Your task to perform on an android device: Go to Google maps Image 0: 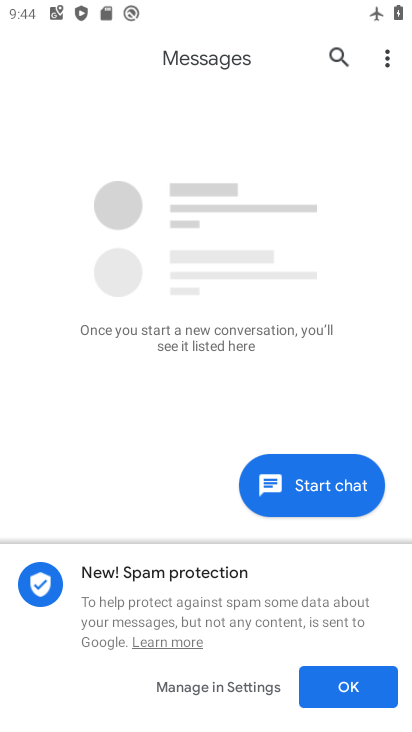
Step 0: press home button
Your task to perform on an android device: Go to Google maps Image 1: 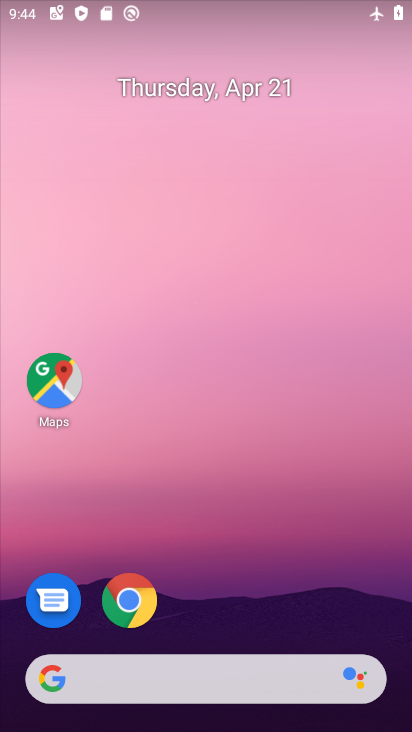
Step 1: click (58, 382)
Your task to perform on an android device: Go to Google maps Image 2: 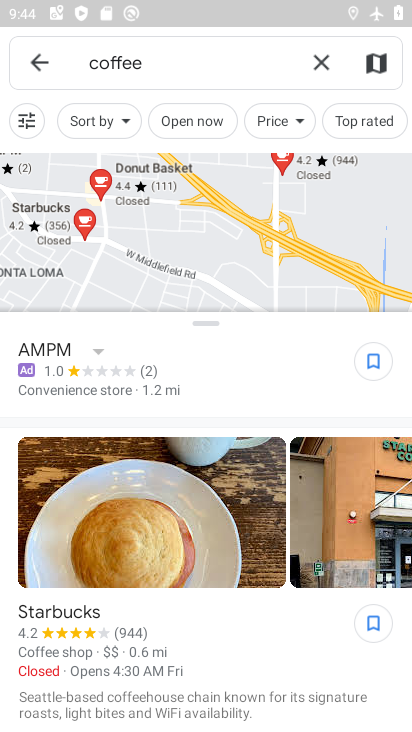
Step 2: task complete